Your task to perform on an android device: all mails in gmail Image 0: 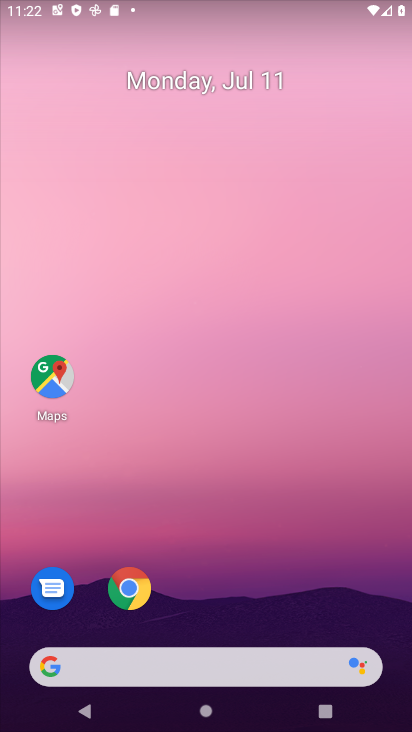
Step 0: drag from (196, 716) to (27, 616)
Your task to perform on an android device: all mails in gmail Image 1: 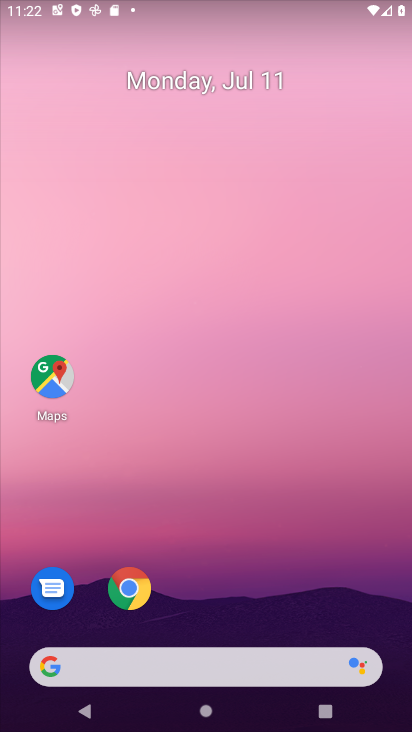
Step 1: drag from (270, 713) to (308, 3)
Your task to perform on an android device: all mails in gmail Image 2: 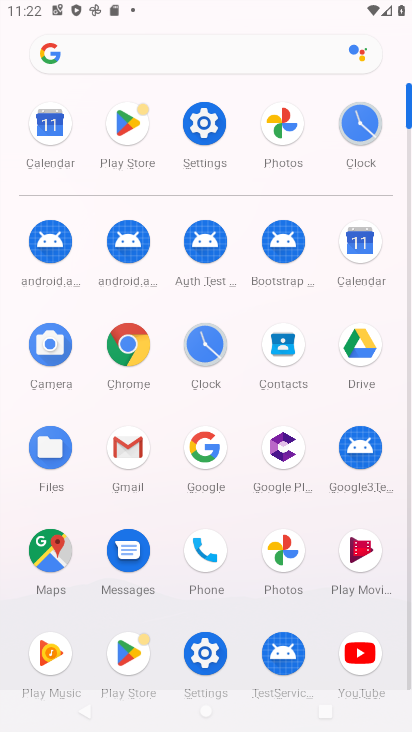
Step 2: click (126, 443)
Your task to perform on an android device: all mails in gmail Image 3: 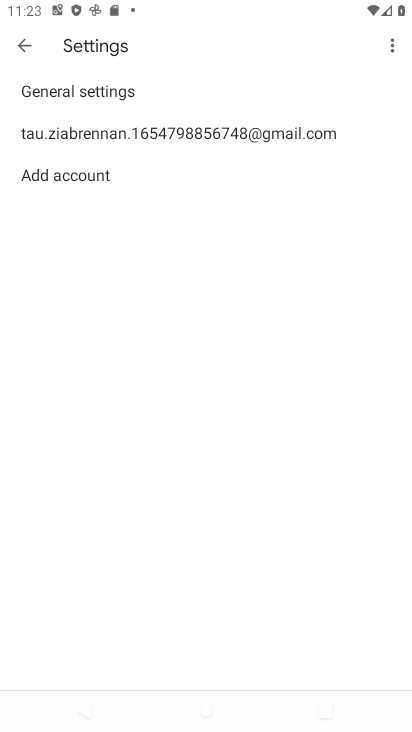
Step 3: click (299, 126)
Your task to perform on an android device: all mails in gmail Image 4: 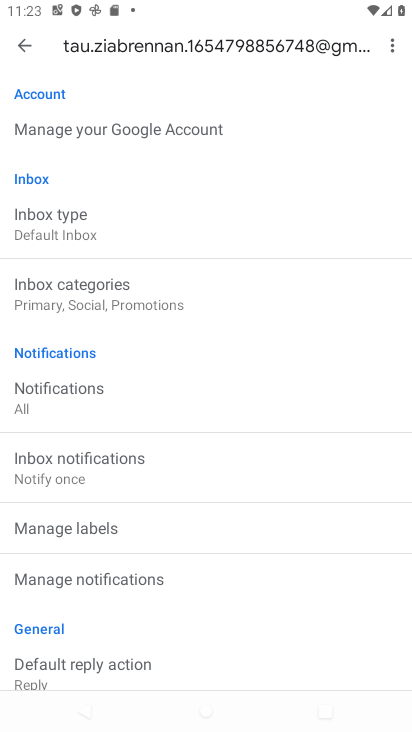
Step 4: click (27, 41)
Your task to perform on an android device: all mails in gmail Image 5: 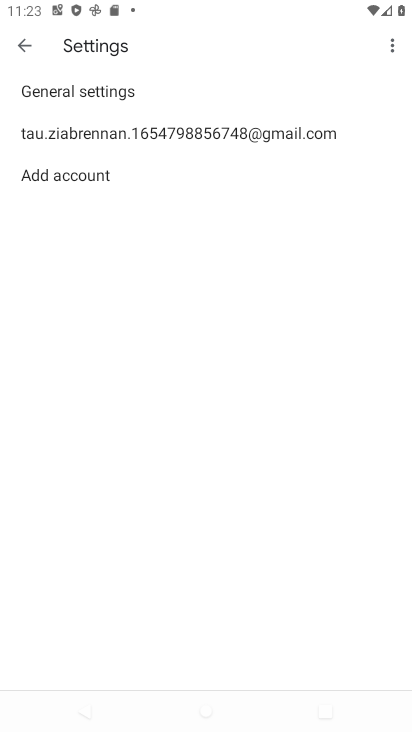
Step 5: click (16, 48)
Your task to perform on an android device: all mails in gmail Image 6: 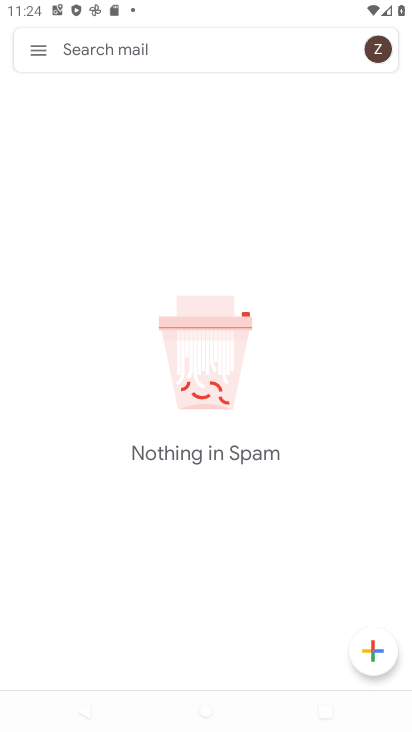
Step 6: click (43, 53)
Your task to perform on an android device: all mails in gmail Image 7: 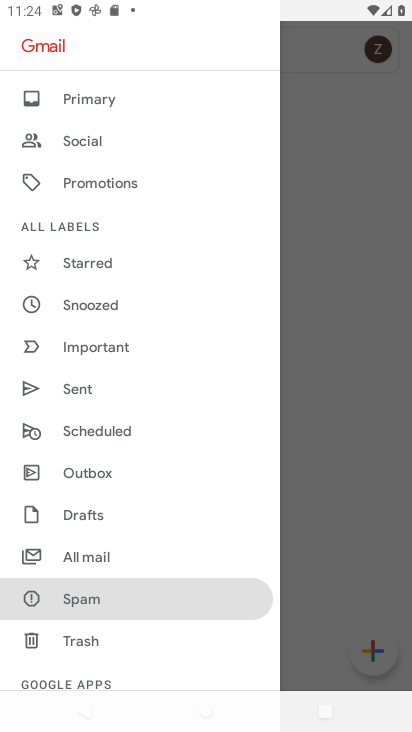
Step 7: click (118, 550)
Your task to perform on an android device: all mails in gmail Image 8: 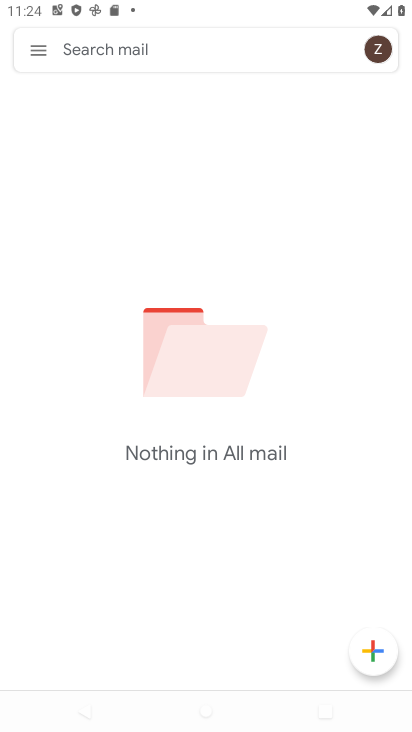
Step 8: task complete